Your task to perform on an android device: Go to internet settings Image 0: 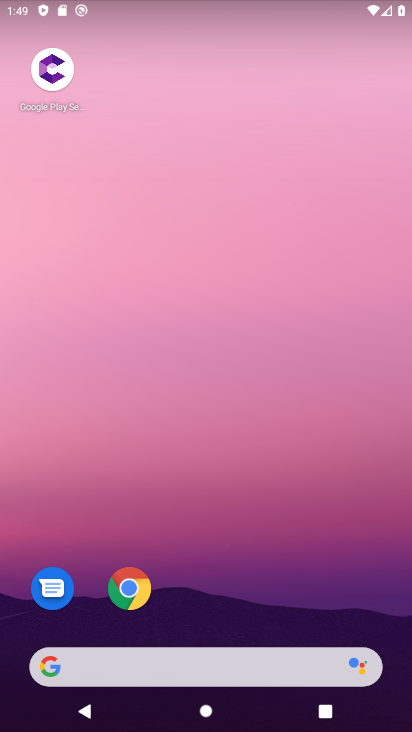
Step 0: drag from (219, 572) to (186, 228)
Your task to perform on an android device: Go to internet settings Image 1: 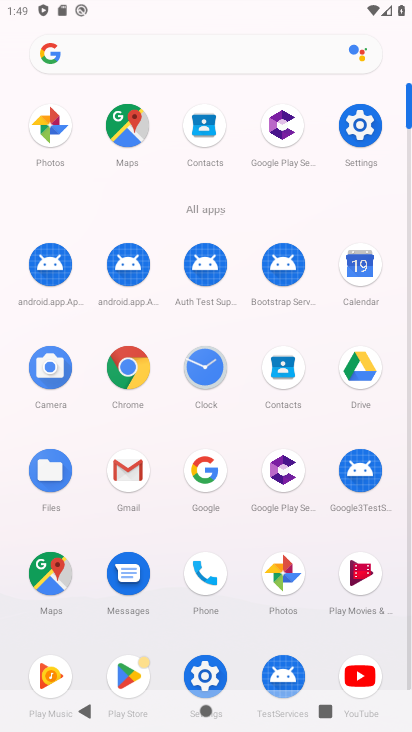
Step 1: click (364, 128)
Your task to perform on an android device: Go to internet settings Image 2: 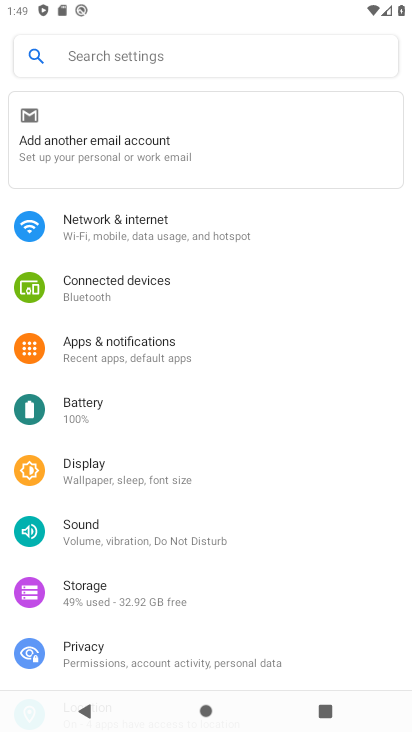
Step 2: click (129, 220)
Your task to perform on an android device: Go to internet settings Image 3: 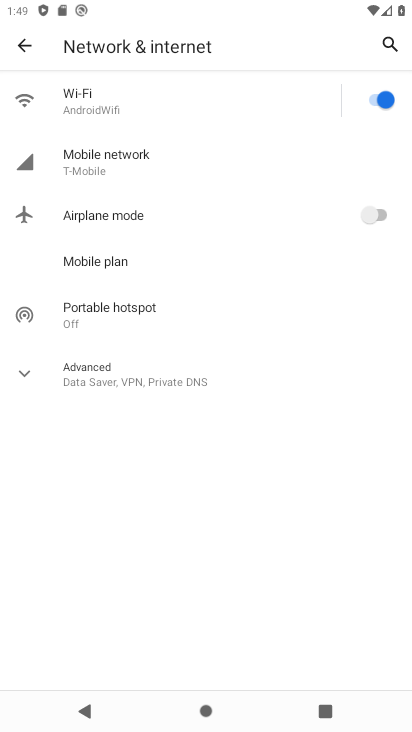
Step 3: task complete